Your task to perform on an android device: toggle wifi Image 0: 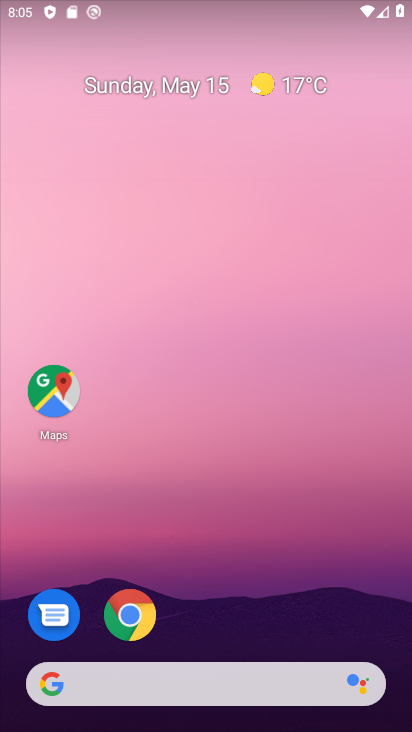
Step 0: drag from (205, 365) to (243, 35)
Your task to perform on an android device: toggle wifi Image 1: 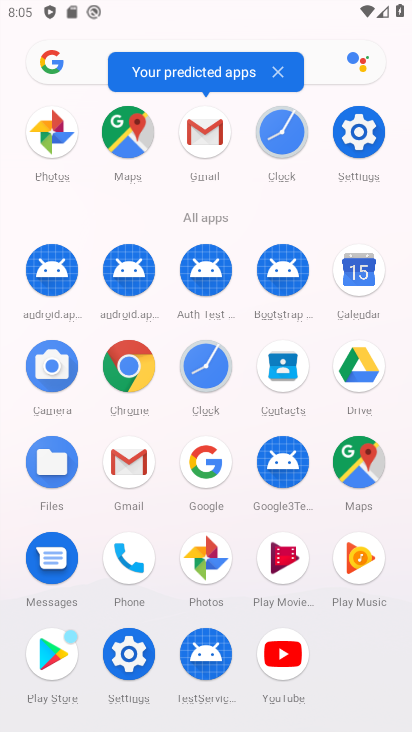
Step 1: click (341, 127)
Your task to perform on an android device: toggle wifi Image 2: 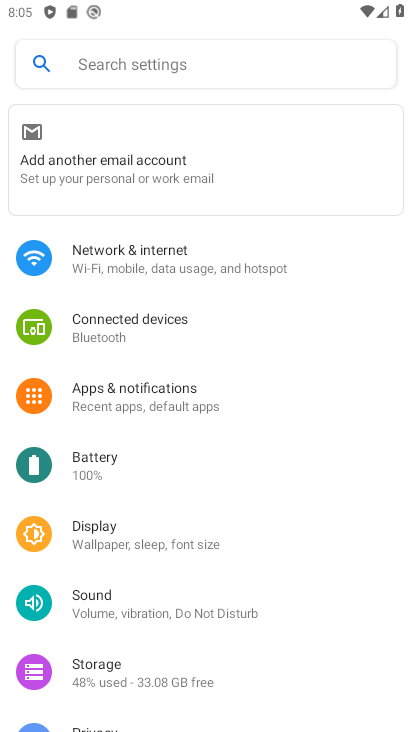
Step 2: click (147, 265)
Your task to perform on an android device: toggle wifi Image 3: 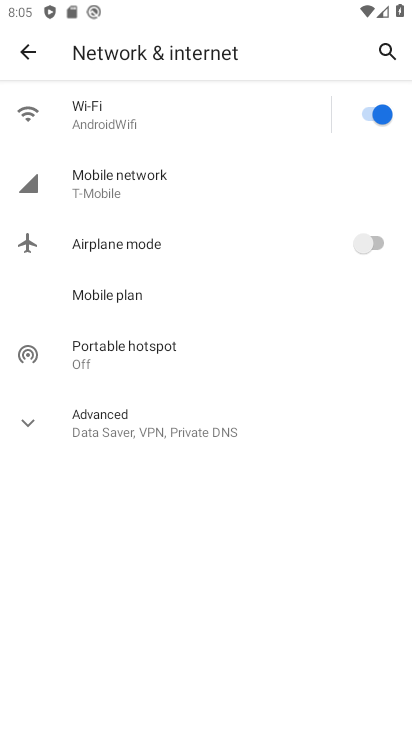
Step 3: click (377, 117)
Your task to perform on an android device: toggle wifi Image 4: 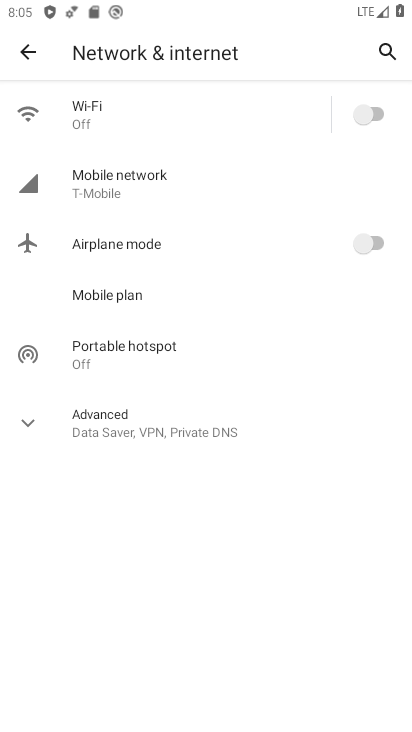
Step 4: task complete